Your task to perform on an android device: snooze an email in the gmail app Image 0: 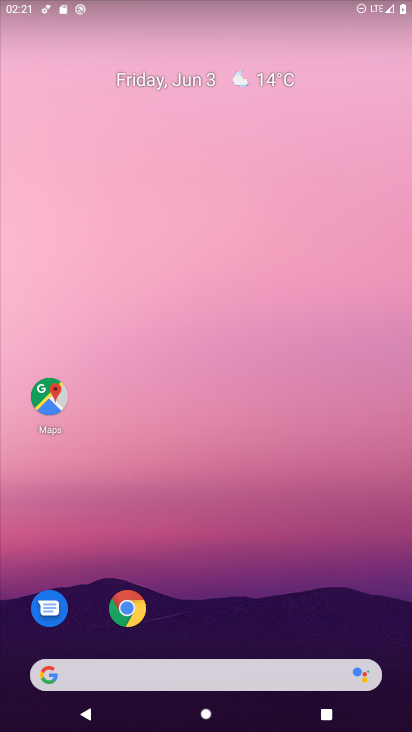
Step 0: drag from (333, 532) to (294, 205)
Your task to perform on an android device: snooze an email in the gmail app Image 1: 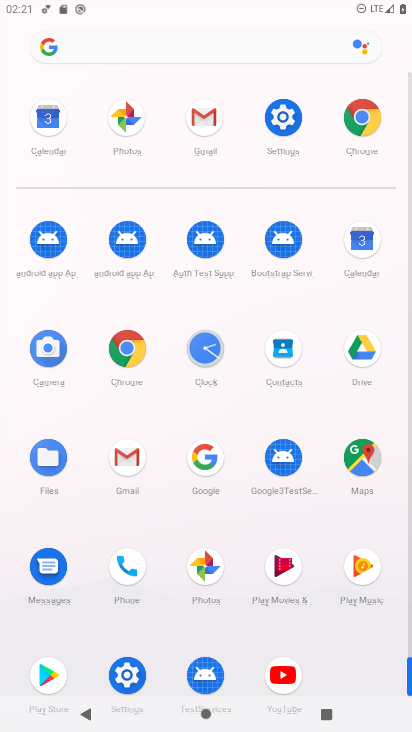
Step 1: click (208, 118)
Your task to perform on an android device: snooze an email in the gmail app Image 2: 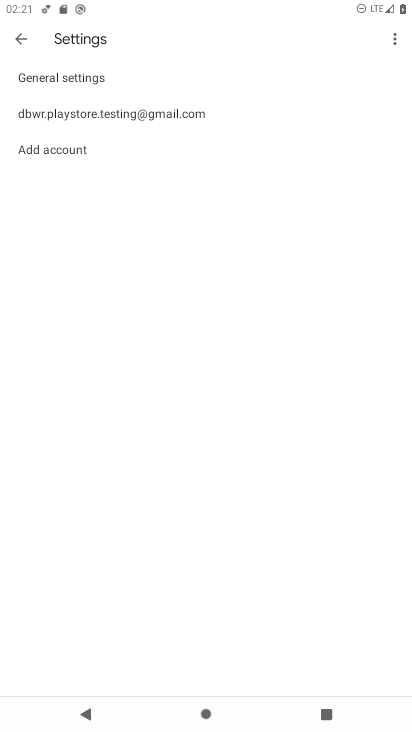
Step 2: click (23, 30)
Your task to perform on an android device: snooze an email in the gmail app Image 3: 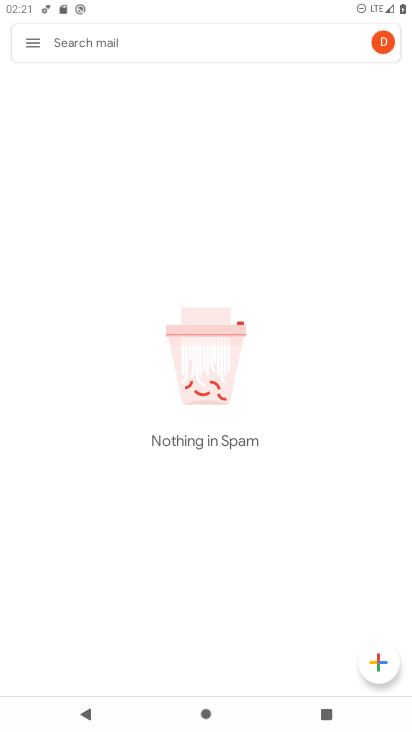
Step 3: click (28, 35)
Your task to perform on an android device: snooze an email in the gmail app Image 4: 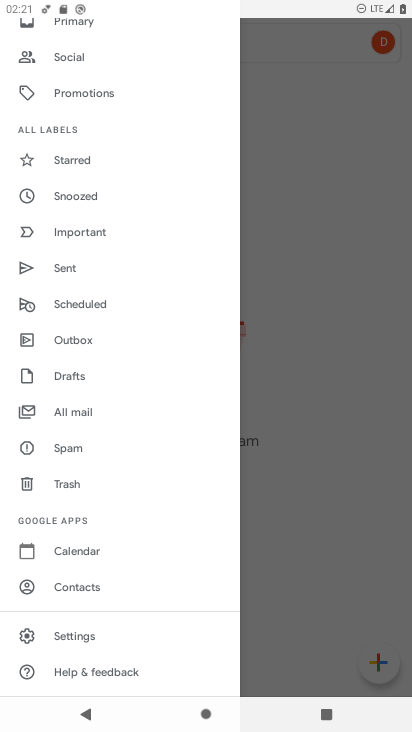
Step 4: drag from (137, 134) to (92, 566)
Your task to perform on an android device: snooze an email in the gmail app Image 5: 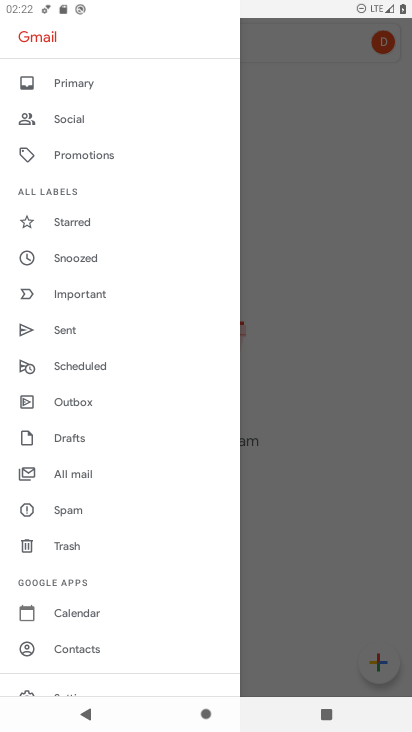
Step 5: click (69, 470)
Your task to perform on an android device: snooze an email in the gmail app Image 6: 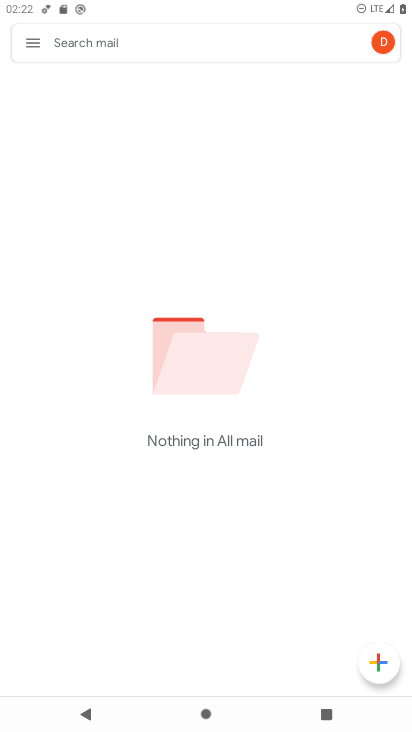
Step 6: task complete